Your task to perform on an android device: turn off wifi Image 0: 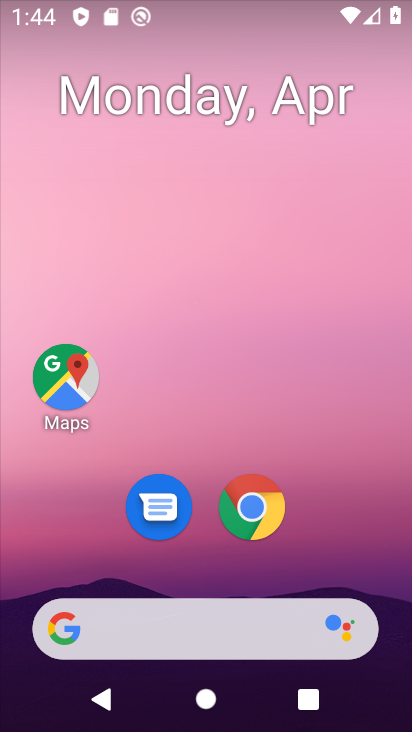
Step 0: drag from (396, 619) to (355, 131)
Your task to perform on an android device: turn off wifi Image 1: 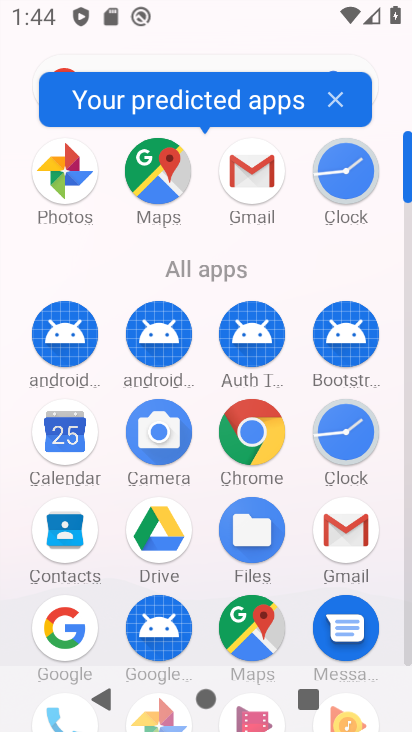
Step 1: click (408, 638)
Your task to perform on an android device: turn off wifi Image 2: 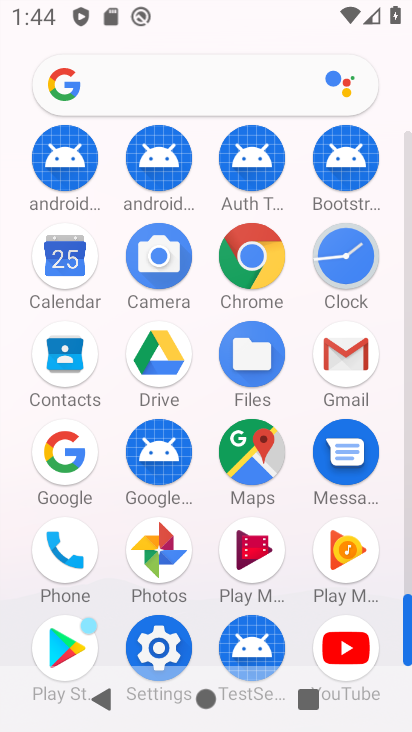
Step 2: click (160, 644)
Your task to perform on an android device: turn off wifi Image 3: 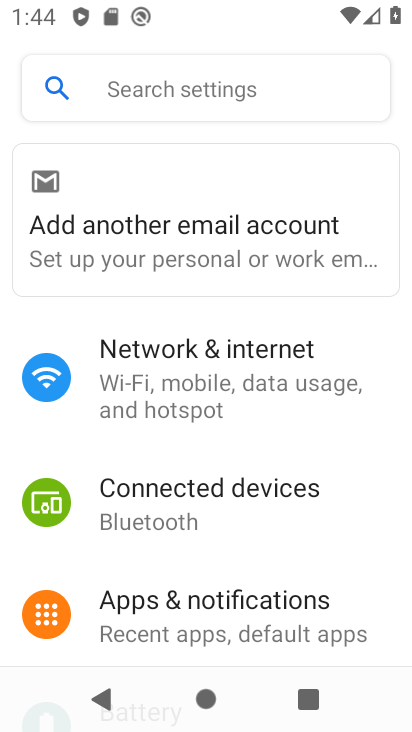
Step 3: click (180, 365)
Your task to perform on an android device: turn off wifi Image 4: 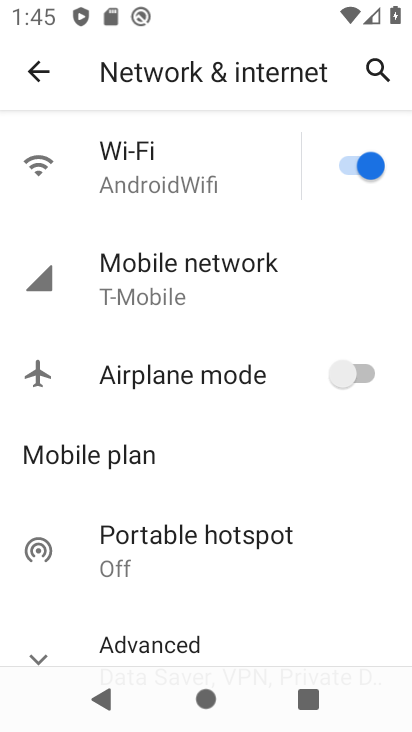
Step 4: click (340, 161)
Your task to perform on an android device: turn off wifi Image 5: 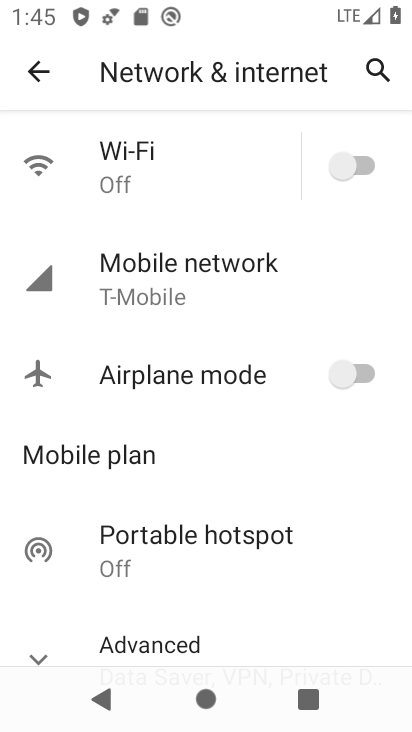
Step 5: task complete